Your task to perform on an android device: Open location settings Image 0: 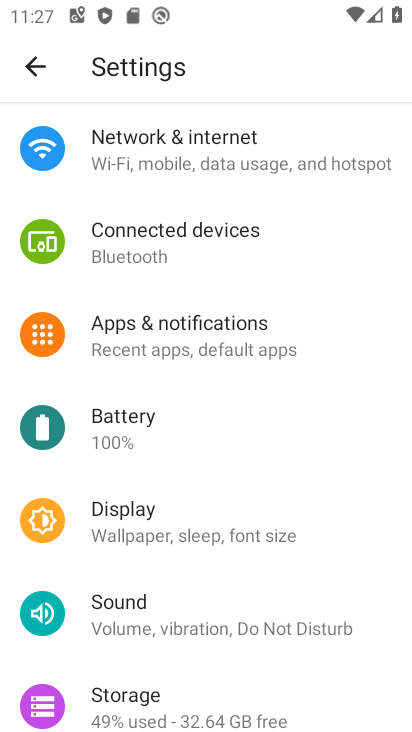
Step 0: press home button
Your task to perform on an android device: Open location settings Image 1: 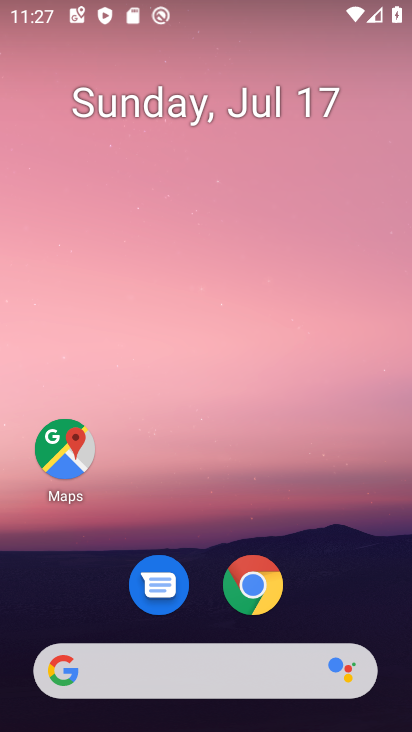
Step 1: drag from (339, 575) to (338, 48)
Your task to perform on an android device: Open location settings Image 2: 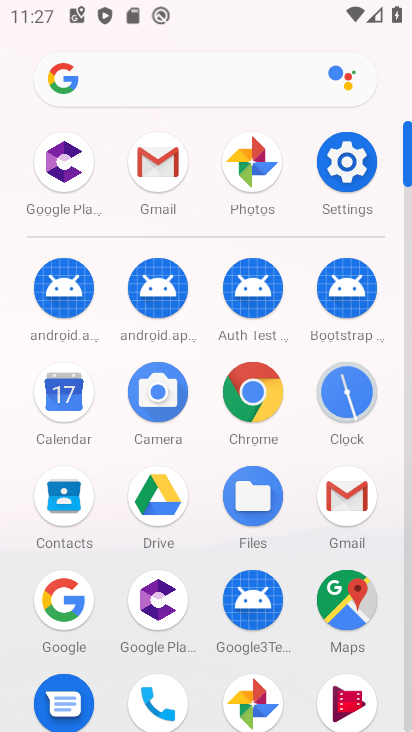
Step 2: click (329, 160)
Your task to perform on an android device: Open location settings Image 3: 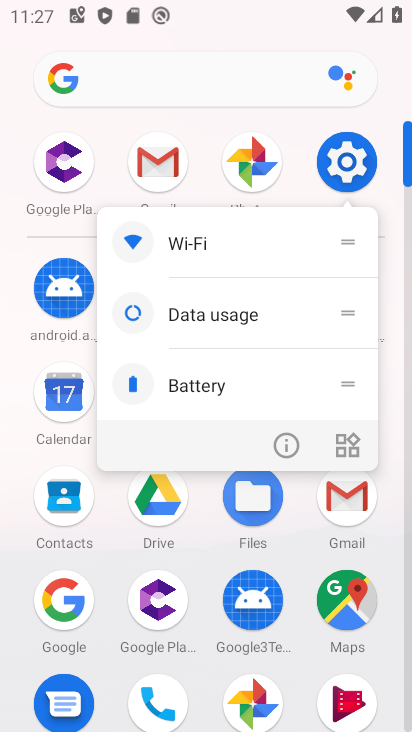
Step 3: click (356, 155)
Your task to perform on an android device: Open location settings Image 4: 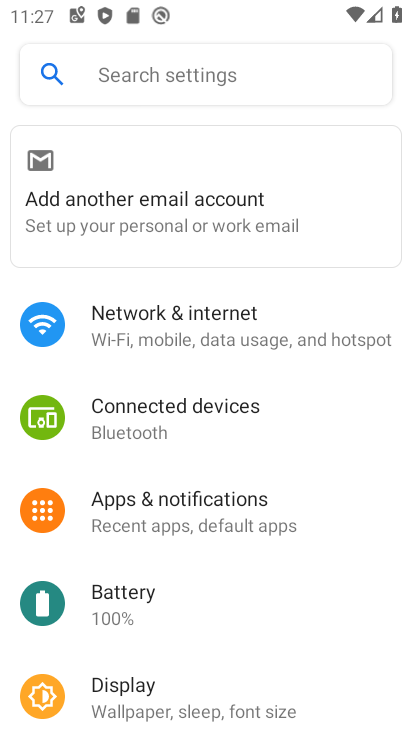
Step 4: drag from (250, 605) to (225, 38)
Your task to perform on an android device: Open location settings Image 5: 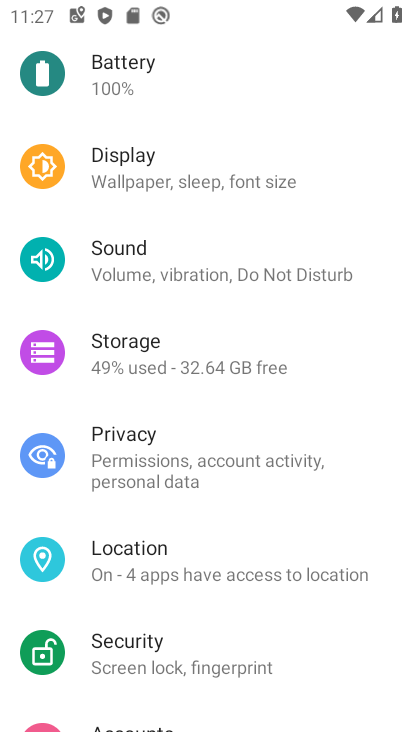
Step 5: click (221, 558)
Your task to perform on an android device: Open location settings Image 6: 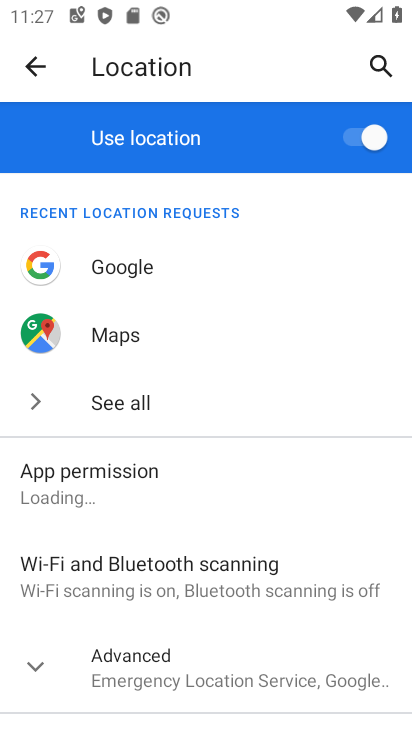
Step 6: task complete